Your task to perform on an android device: clear all cookies in the chrome app Image 0: 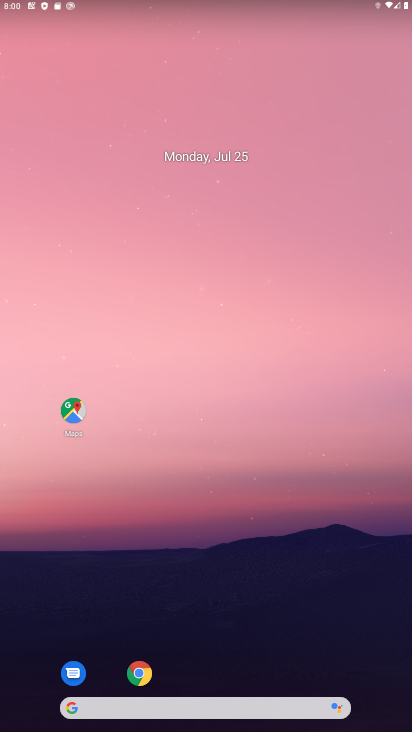
Step 0: drag from (297, 714) to (234, 313)
Your task to perform on an android device: clear all cookies in the chrome app Image 1: 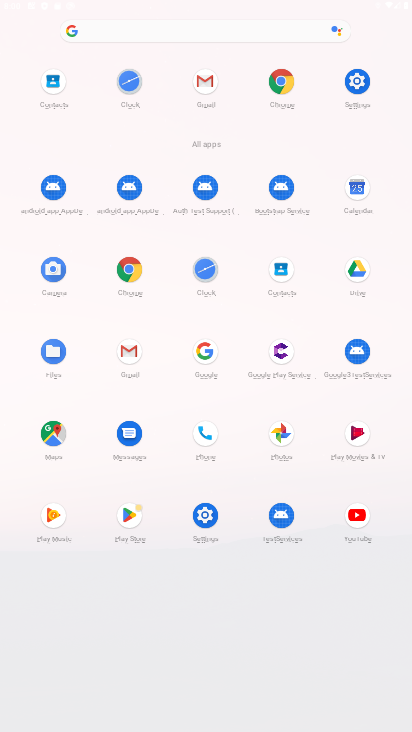
Step 1: click (275, 83)
Your task to perform on an android device: clear all cookies in the chrome app Image 2: 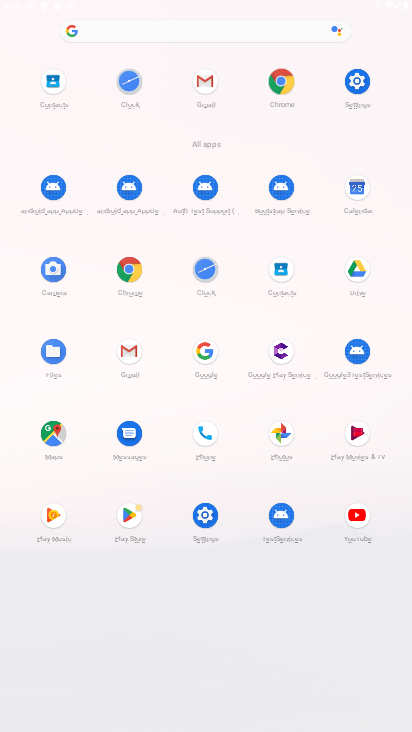
Step 2: click (275, 83)
Your task to perform on an android device: clear all cookies in the chrome app Image 3: 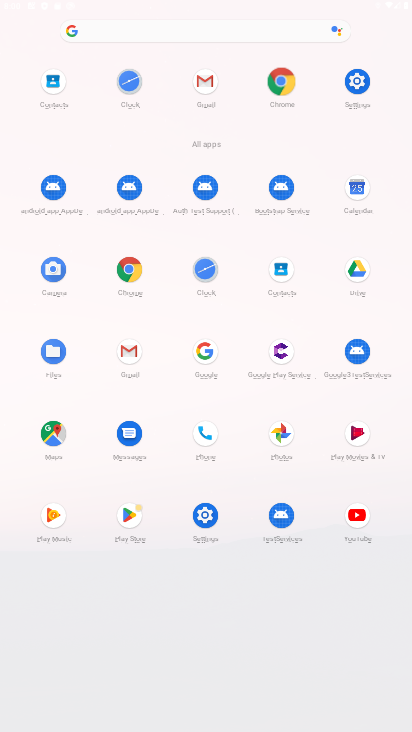
Step 3: click (276, 84)
Your task to perform on an android device: clear all cookies in the chrome app Image 4: 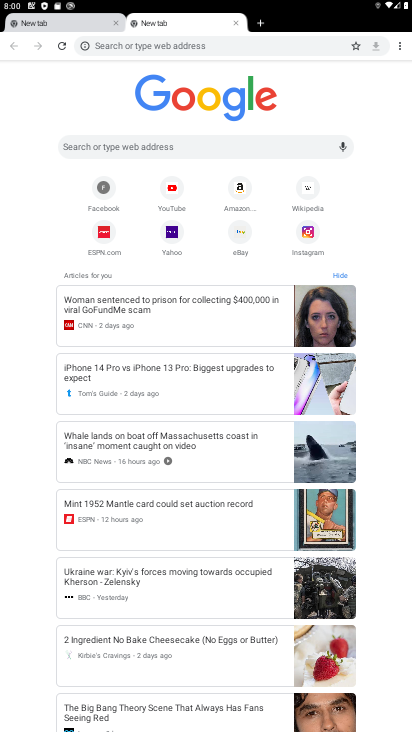
Step 4: drag from (398, 49) to (304, 209)
Your task to perform on an android device: clear all cookies in the chrome app Image 5: 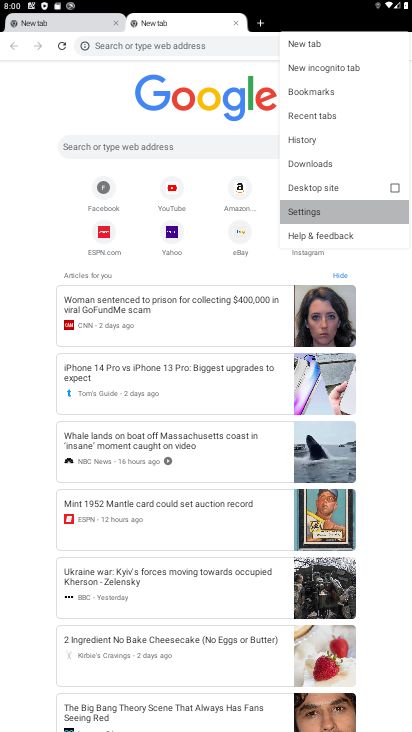
Step 5: click (304, 209)
Your task to perform on an android device: clear all cookies in the chrome app Image 6: 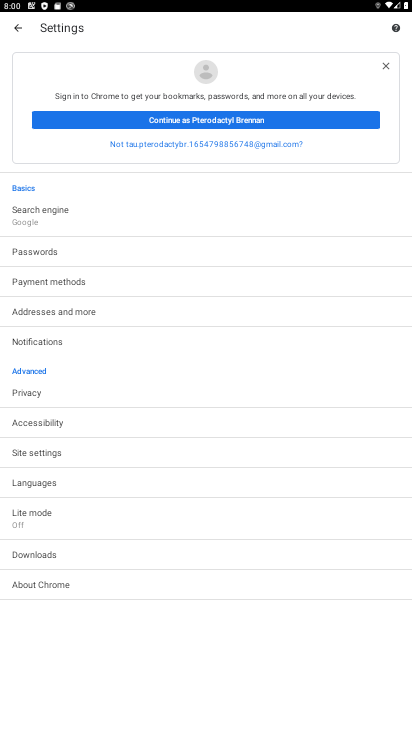
Step 6: click (19, 449)
Your task to perform on an android device: clear all cookies in the chrome app Image 7: 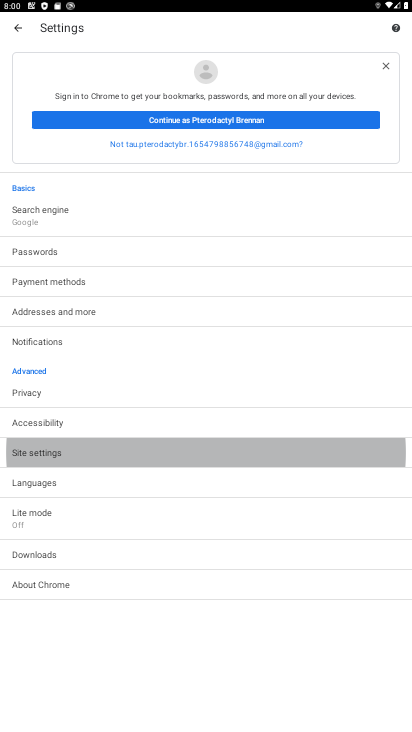
Step 7: click (25, 448)
Your task to perform on an android device: clear all cookies in the chrome app Image 8: 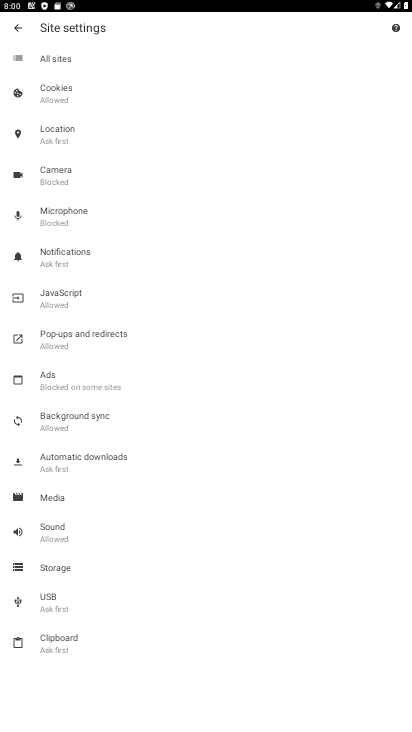
Step 8: click (58, 81)
Your task to perform on an android device: clear all cookies in the chrome app Image 9: 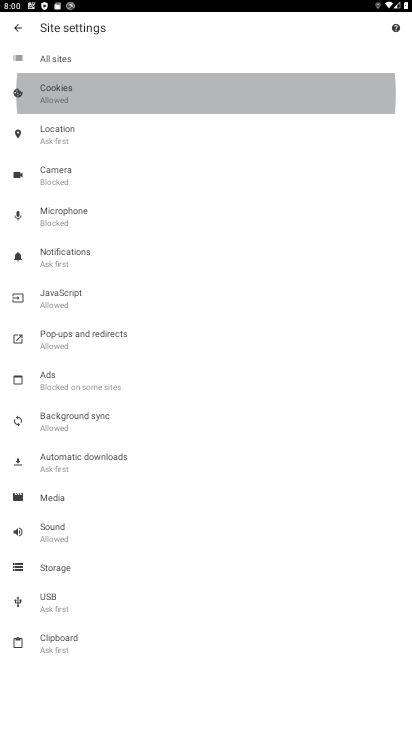
Step 9: click (59, 82)
Your task to perform on an android device: clear all cookies in the chrome app Image 10: 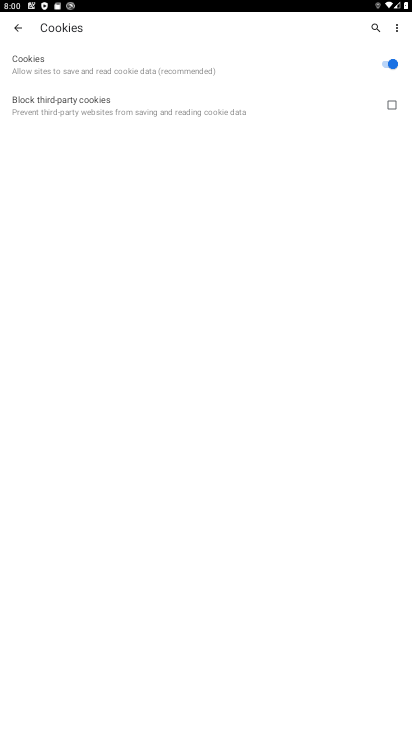
Step 10: click (391, 62)
Your task to perform on an android device: clear all cookies in the chrome app Image 11: 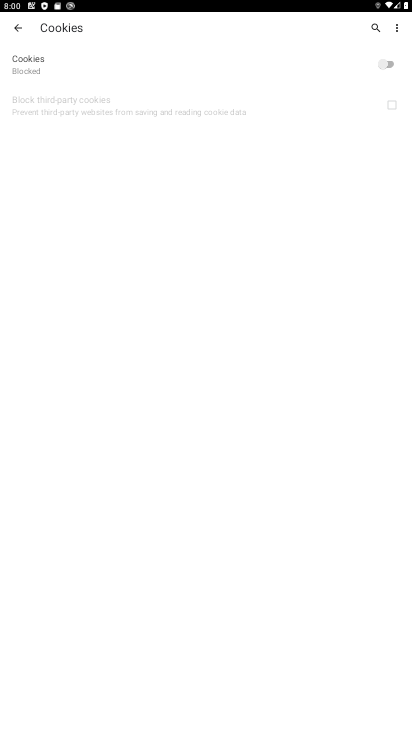
Step 11: task complete